Your task to perform on an android device: Open accessibility settings Image 0: 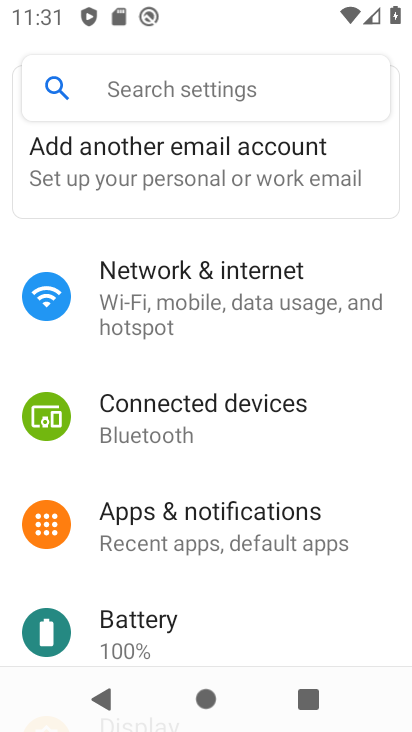
Step 0: drag from (226, 558) to (288, 207)
Your task to perform on an android device: Open accessibility settings Image 1: 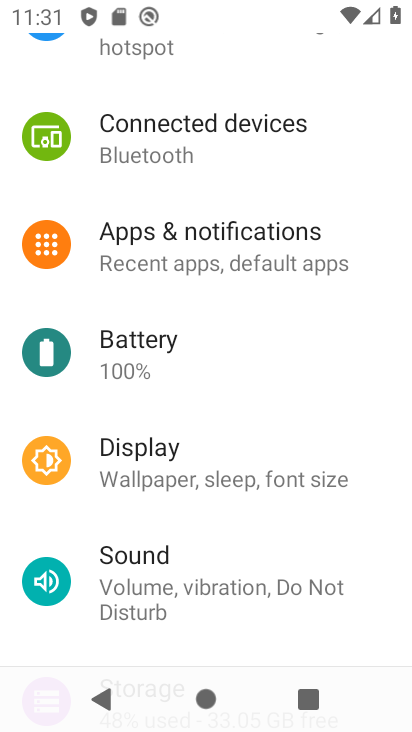
Step 1: drag from (255, 570) to (285, 275)
Your task to perform on an android device: Open accessibility settings Image 2: 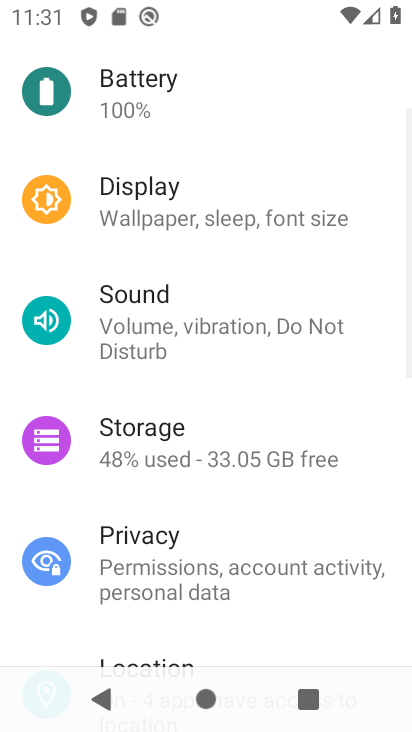
Step 2: drag from (230, 605) to (293, 273)
Your task to perform on an android device: Open accessibility settings Image 3: 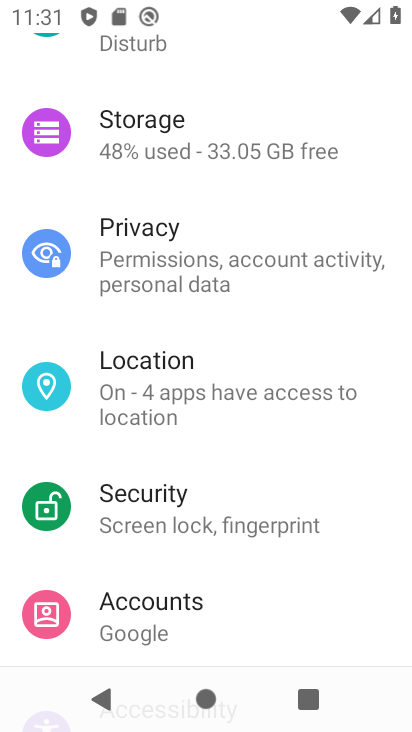
Step 3: drag from (194, 593) to (224, 270)
Your task to perform on an android device: Open accessibility settings Image 4: 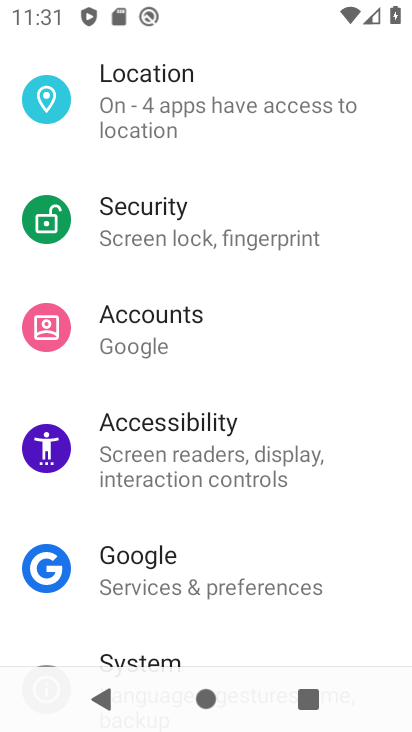
Step 4: click (165, 445)
Your task to perform on an android device: Open accessibility settings Image 5: 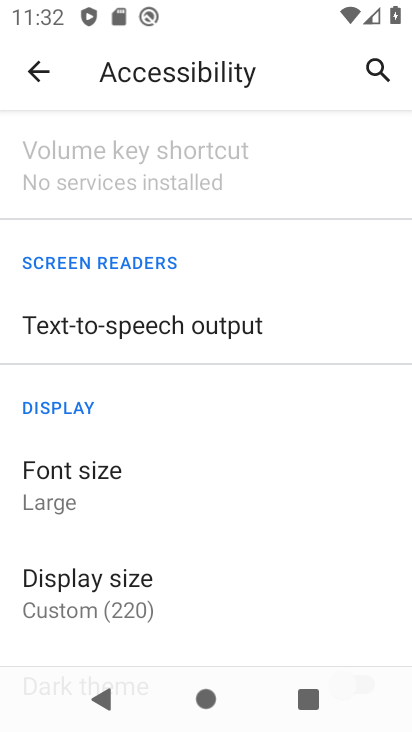
Step 5: task complete